Your task to perform on an android device: Open my contact list Image 0: 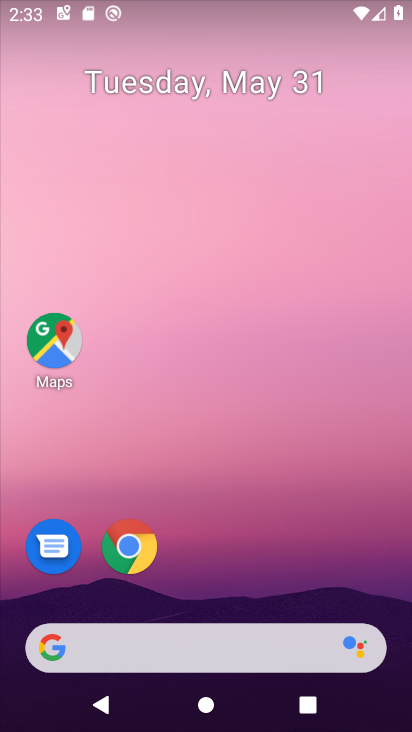
Step 0: drag from (286, 410) to (201, 41)
Your task to perform on an android device: Open my contact list Image 1: 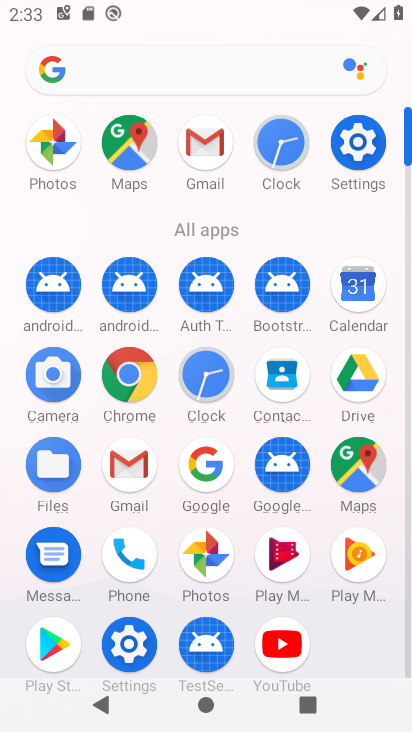
Step 1: click (296, 383)
Your task to perform on an android device: Open my contact list Image 2: 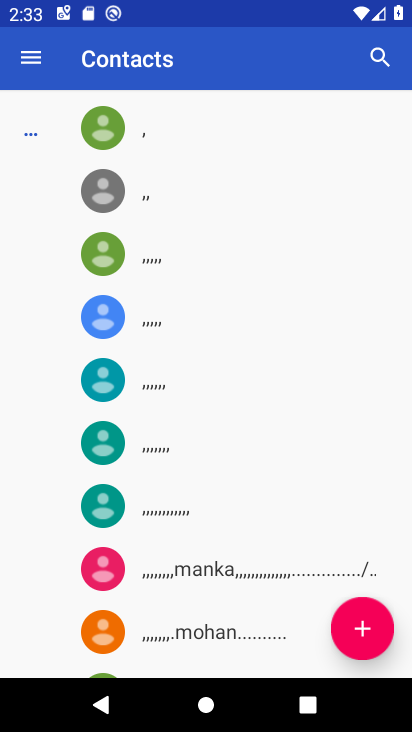
Step 2: task complete